Your task to perform on an android device: find which apps use the phone's location Image 0: 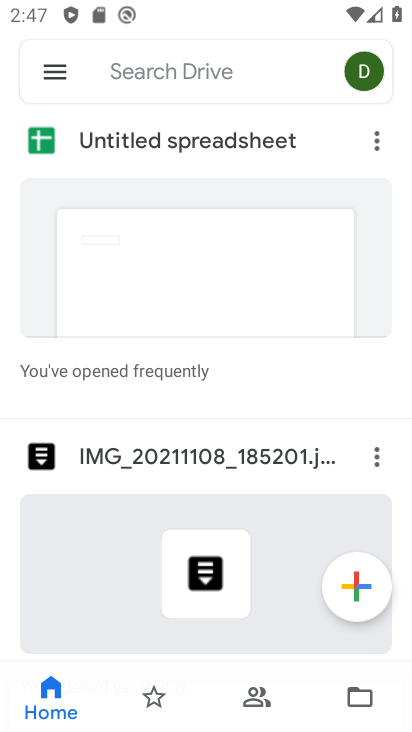
Step 0: press home button
Your task to perform on an android device: find which apps use the phone's location Image 1: 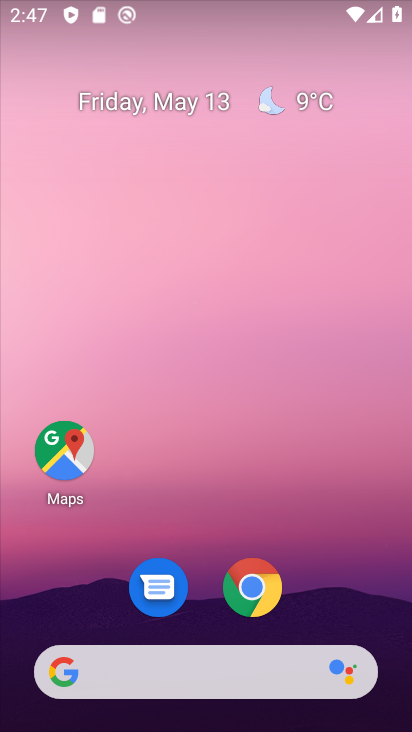
Step 1: drag from (326, 593) to (331, 129)
Your task to perform on an android device: find which apps use the phone's location Image 2: 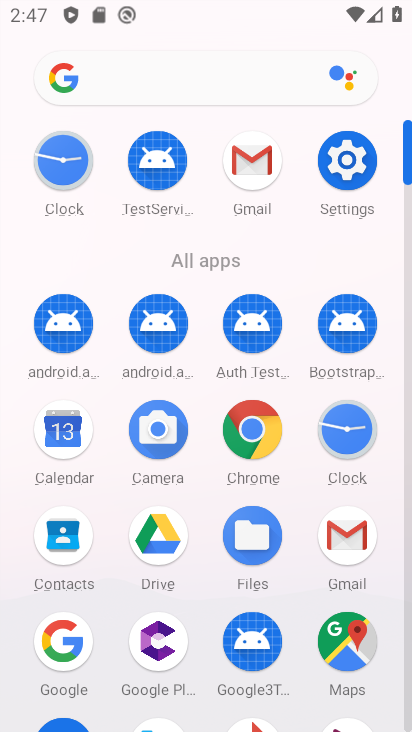
Step 2: click (342, 173)
Your task to perform on an android device: find which apps use the phone's location Image 3: 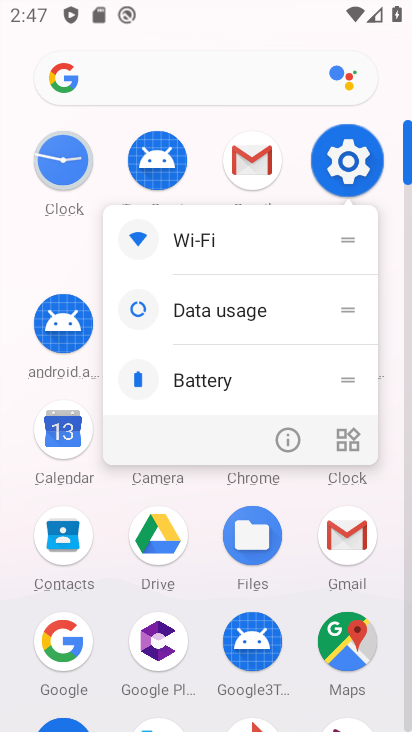
Step 3: click (342, 173)
Your task to perform on an android device: find which apps use the phone's location Image 4: 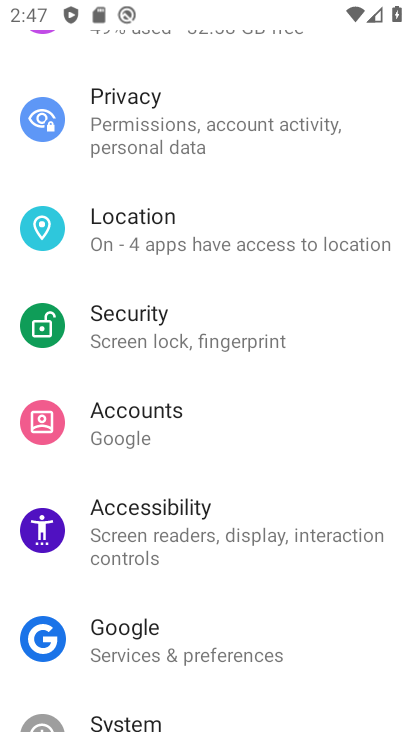
Step 4: click (209, 241)
Your task to perform on an android device: find which apps use the phone's location Image 5: 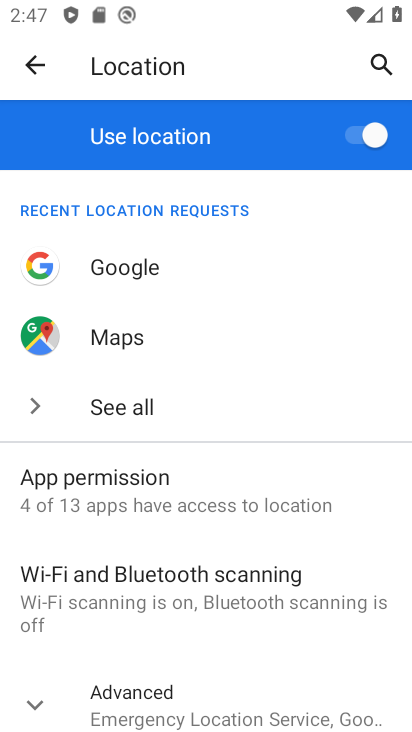
Step 5: click (199, 272)
Your task to perform on an android device: find which apps use the phone's location Image 6: 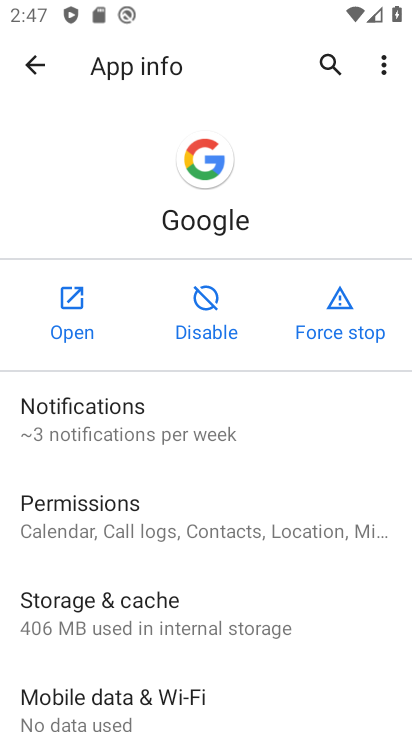
Step 6: click (140, 535)
Your task to perform on an android device: find which apps use the phone's location Image 7: 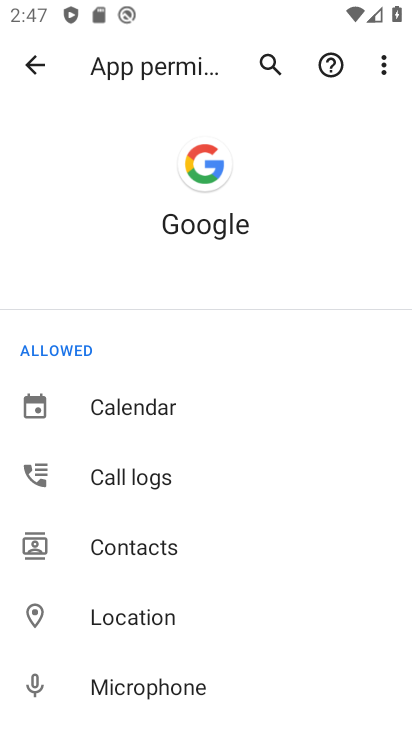
Step 7: click (131, 622)
Your task to perform on an android device: find which apps use the phone's location Image 8: 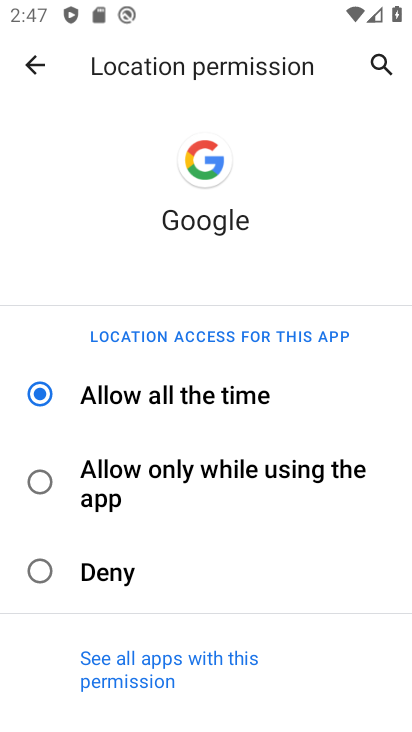
Step 8: task complete